Your task to perform on an android device: Turn off the flashlight Image 0: 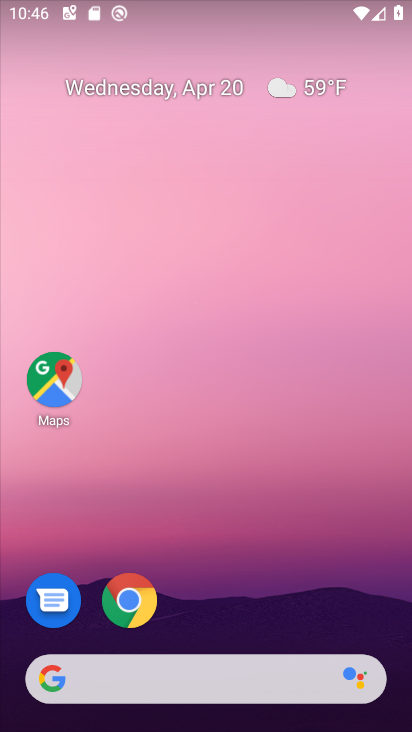
Step 0: drag from (295, 547) to (276, 69)
Your task to perform on an android device: Turn off the flashlight Image 1: 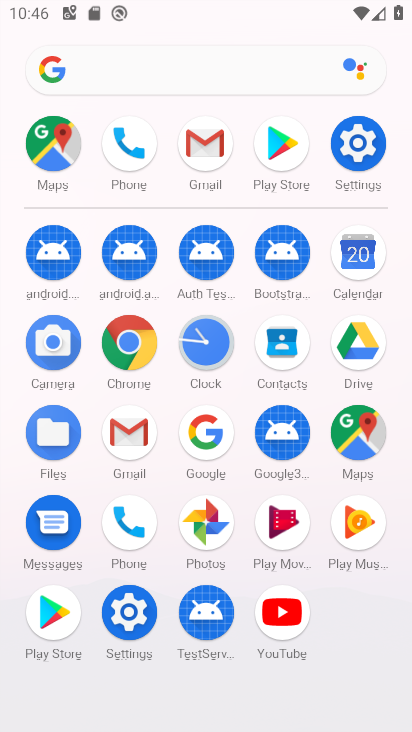
Step 1: click (358, 136)
Your task to perform on an android device: Turn off the flashlight Image 2: 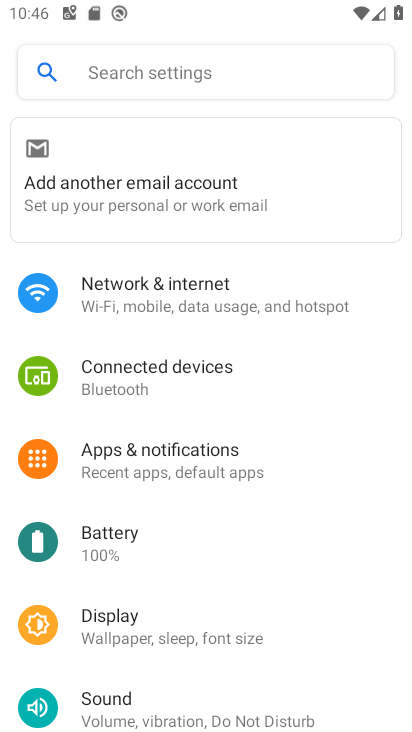
Step 2: click (312, 73)
Your task to perform on an android device: Turn off the flashlight Image 3: 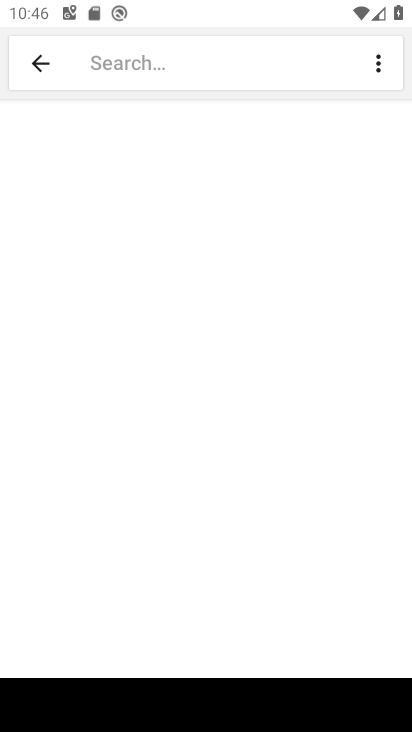
Step 3: type "flashlight"
Your task to perform on an android device: Turn off the flashlight Image 4: 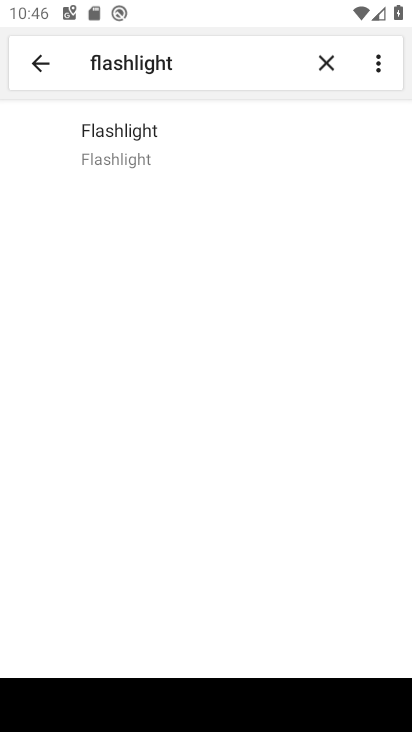
Step 4: click (133, 139)
Your task to perform on an android device: Turn off the flashlight Image 5: 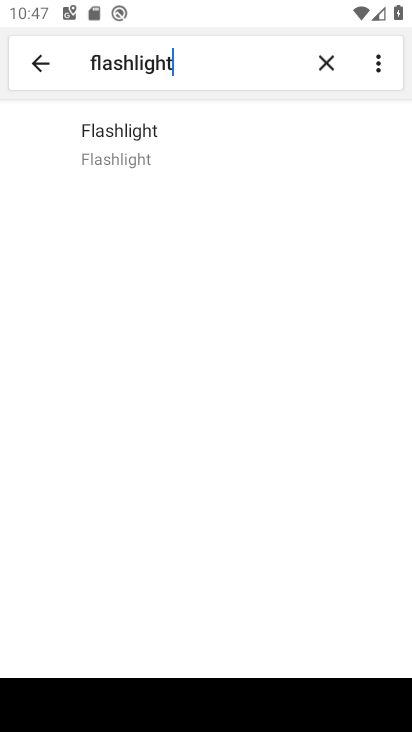
Step 5: task complete